Your task to perform on an android device: toggle improve location accuracy Image 0: 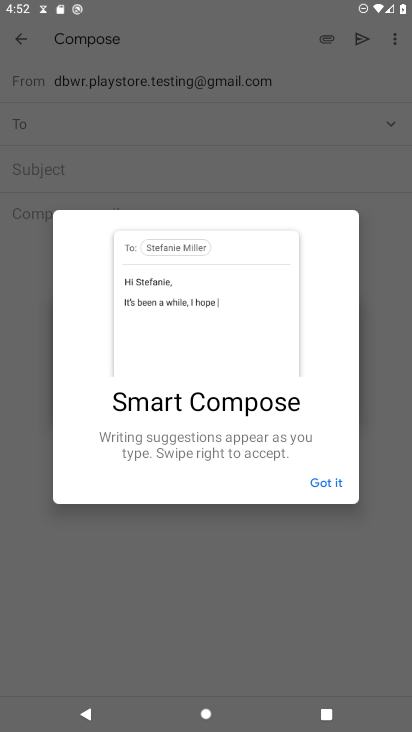
Step 0: press home button
Your task to perform on an android device: toggle improve location accuracy Image 1: 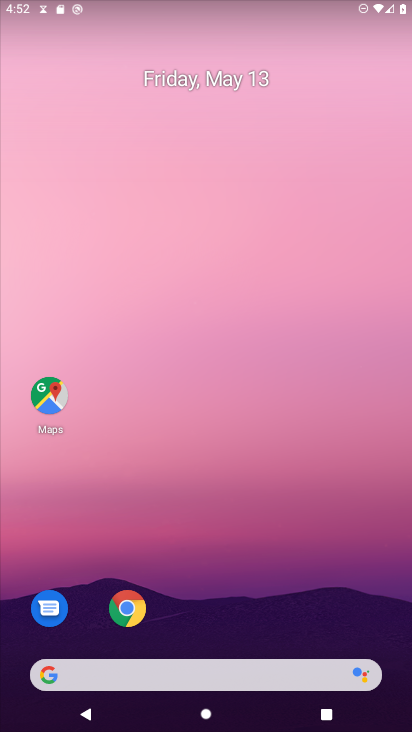
Step 1: drag from (286, 671) to (277, 7)
Your task to perform on an android device: toggle improve location accuracy Image 2: 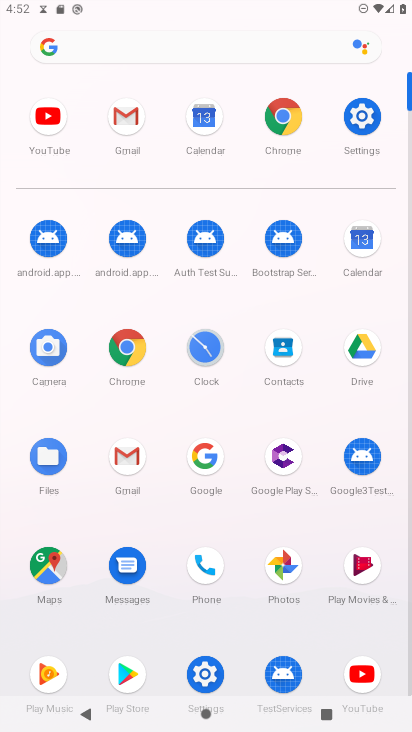
Step 2: click (362, 127)
Your task to perform on an android device: toggle improve location accuracy Image 3: 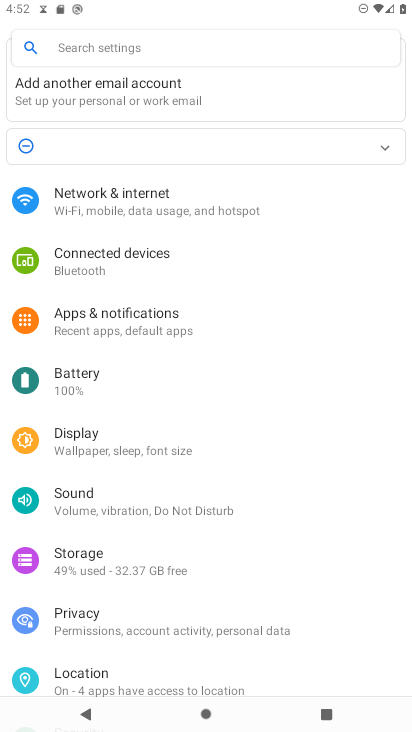
Step 3: click (118, 674)
Your task to perform on an android device: toggle improve location accuracy Image 4: 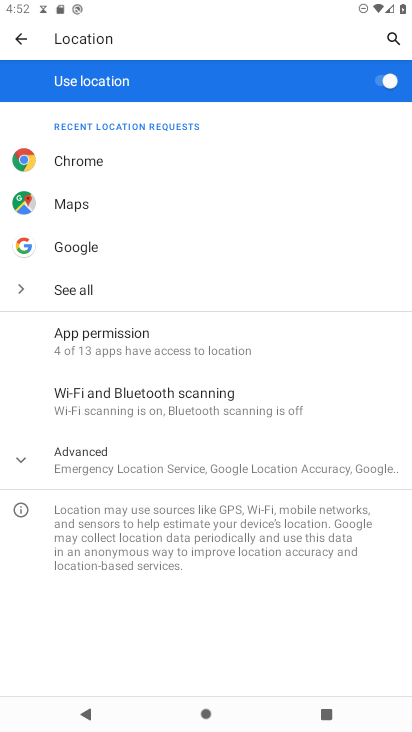
Step 4: click (183, 462)
Your task to perform on an android device: toggle improve location accuracy Image 5: 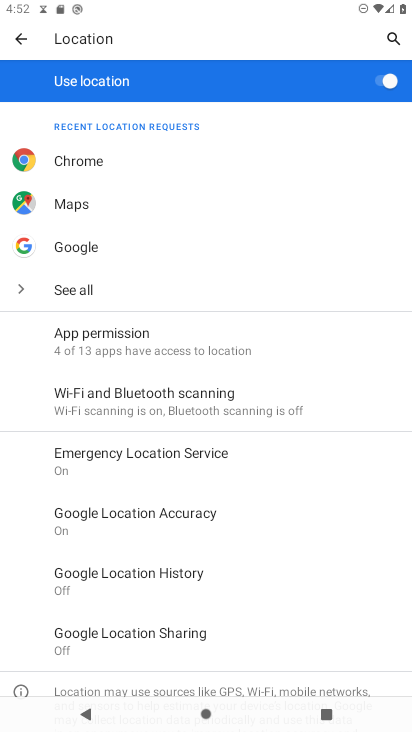
Step 5: click (196, 518)
Your task to perform on an android device: toggle improve location accuracy Image 6: 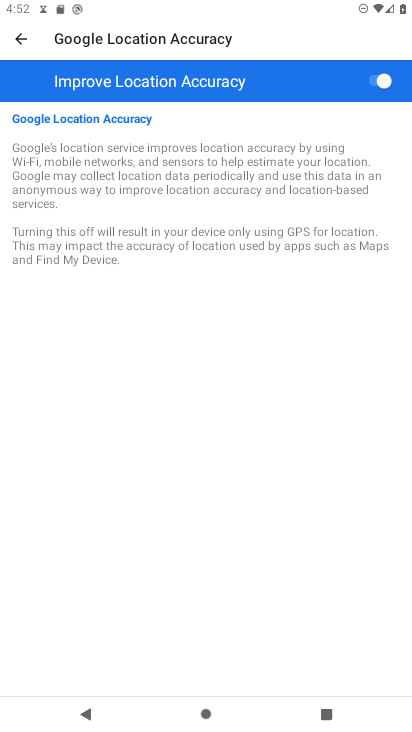
Step 6: click (374, 80)
Your task to perform on an android device: toggle improve location accuracy Image 7: 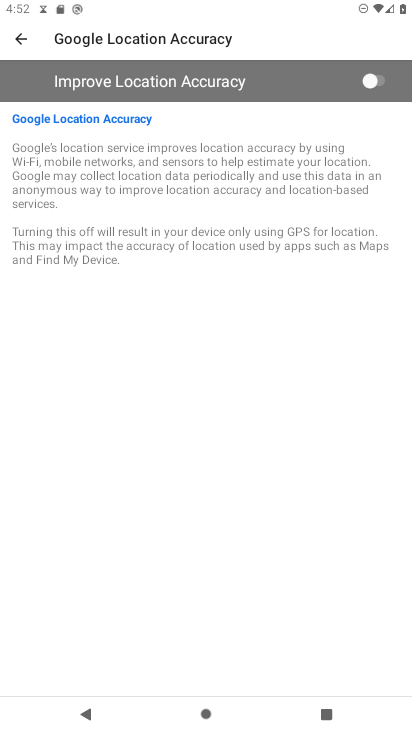
Step 7: task complete